Your task to perform on an android device: snooze an email in the gmail app Image 0: 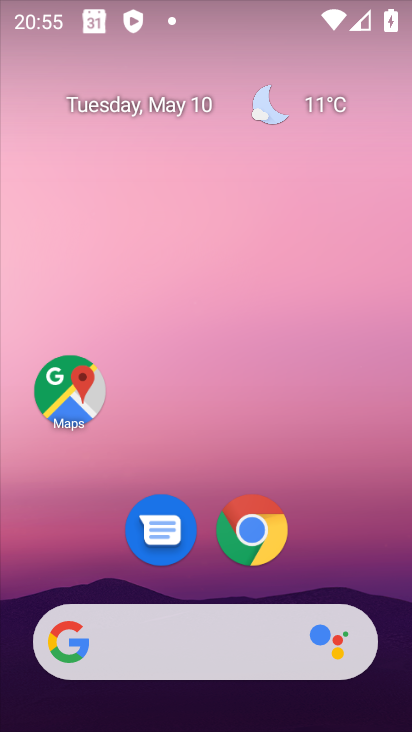
Step 0: drag from (295, 513) to (285, 121)
Your task to perform on an android device: snooze an email in the gmail app Image 1: 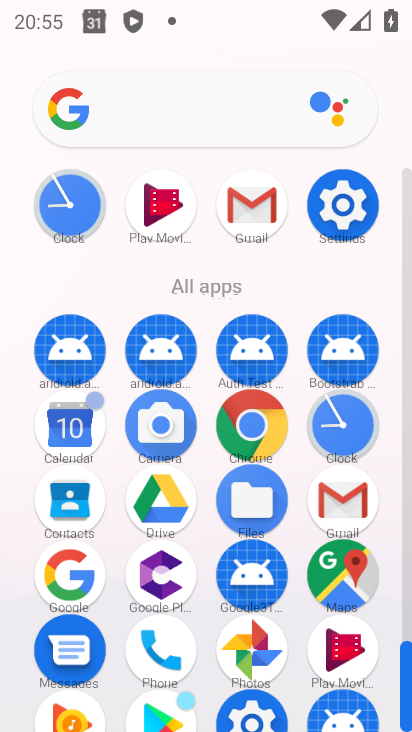
Step 1: click (352, 511)
Your task to perform on an android device: snooze an email in the gmail app Image 2: 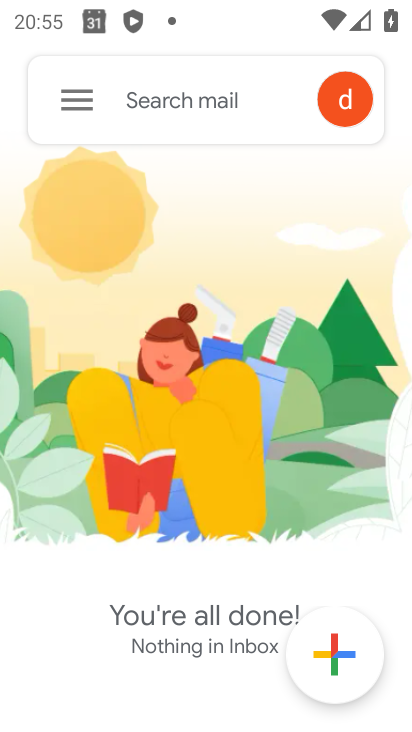
Step 2: click (85, 107)
Your task to perform on an android device: snooze an email in the gmail app Image 3: 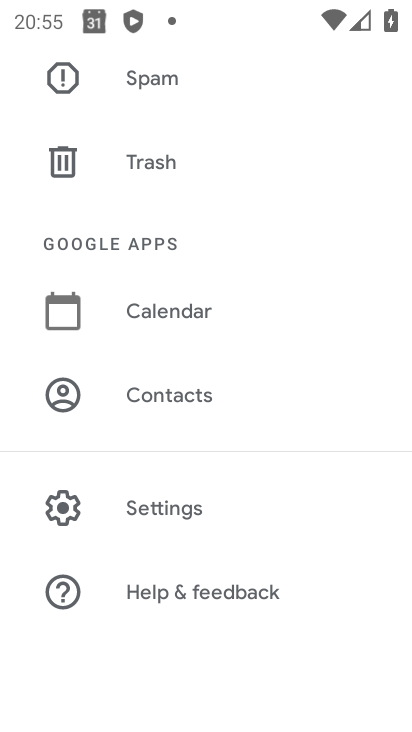
Step 3: drag from (298, 153) to (219, 599)
Your task to perform on an android device: snooze an email in the gmail app Image 4: 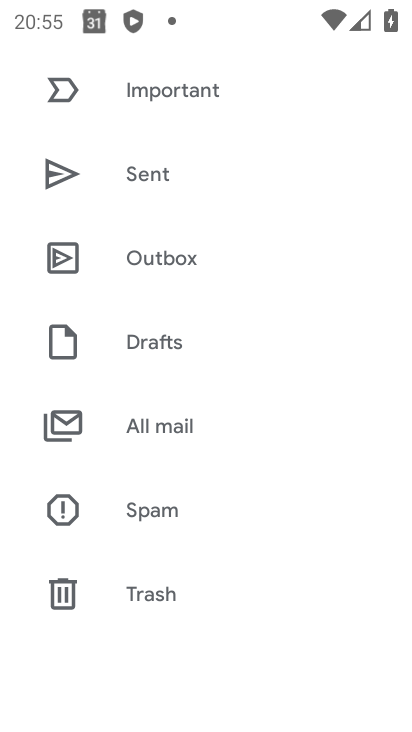
Step 4: drag from (298, 236) to (244, 595)
Your task to perform on an android device: snooze an email in the gmail app Image 5: 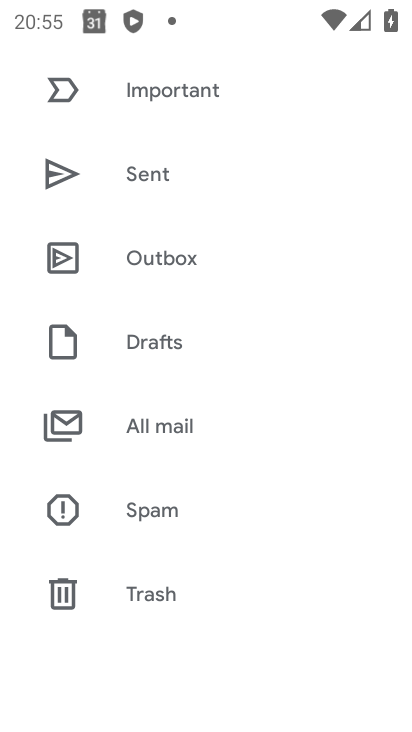
Step 5: drag from (309, 195) to (262, 603)
Your task to perform on an android device: snooze an email in the gmail app Image 6: 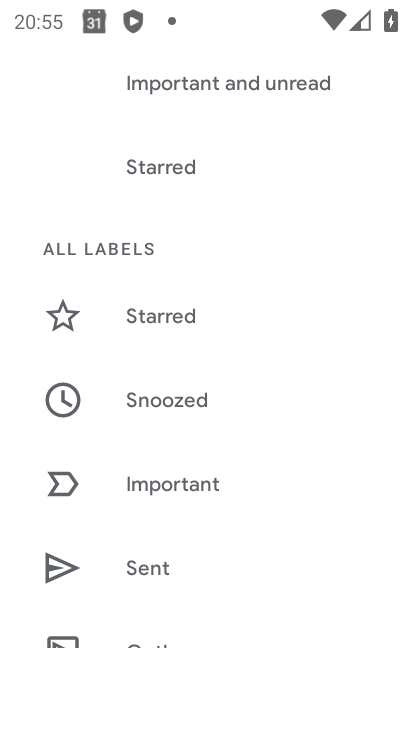
Step 6: drag from (182, 329) to (150, 627)
Your task to perform on an android device: snooze an email in the gmail app Image 7: 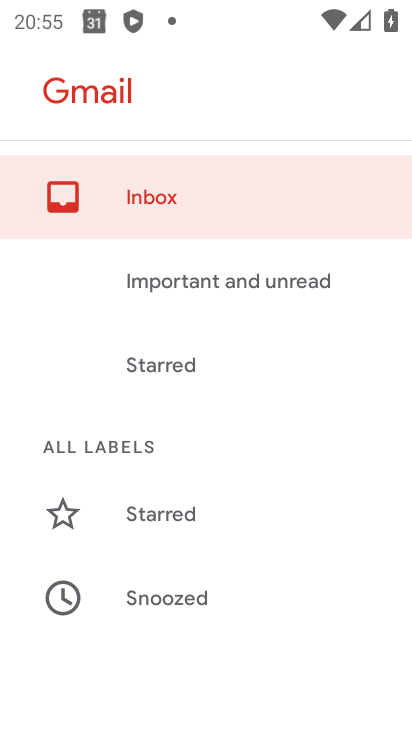
Step 7: click (195, 288)
Your task to perform on an android device: snooze an email in the gmail app Image 8: 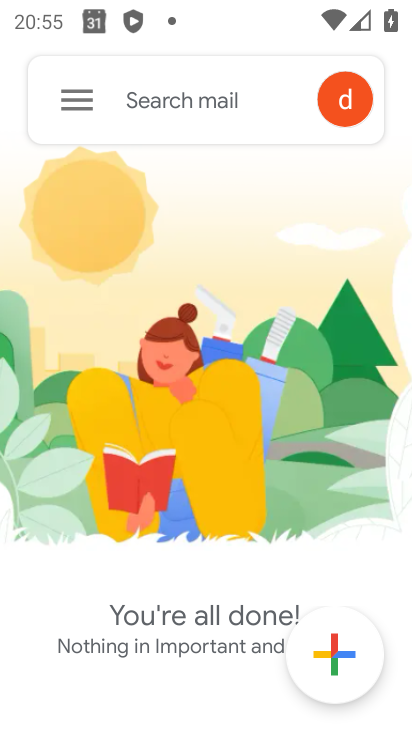
Step 8: task complete